Your task to perform on an android device: change the clock display to digital Image 0: 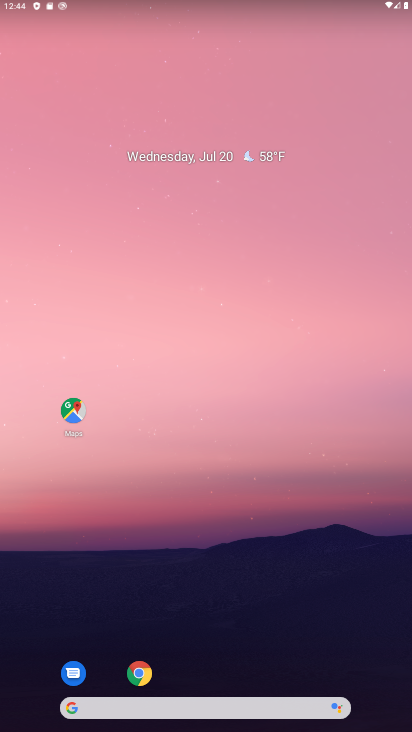
Step 0: drag from (234, 614) to (206, 90)
Your task to perform on an android device: change the clock display to digital Image 1: 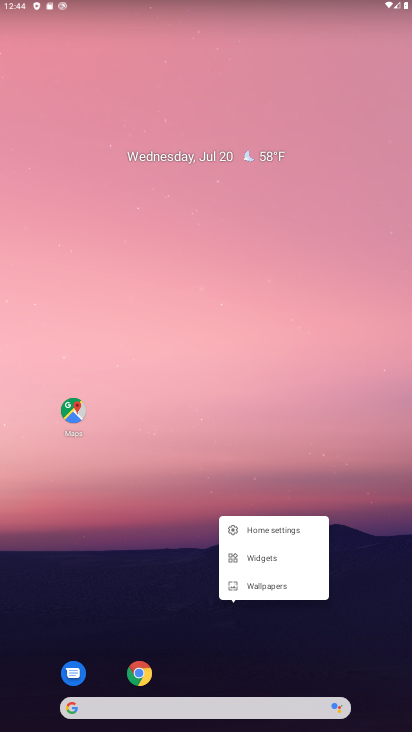
Step 1: click (310, 306)
Your task to perform on an android device: change the clock display to digital Image 2: 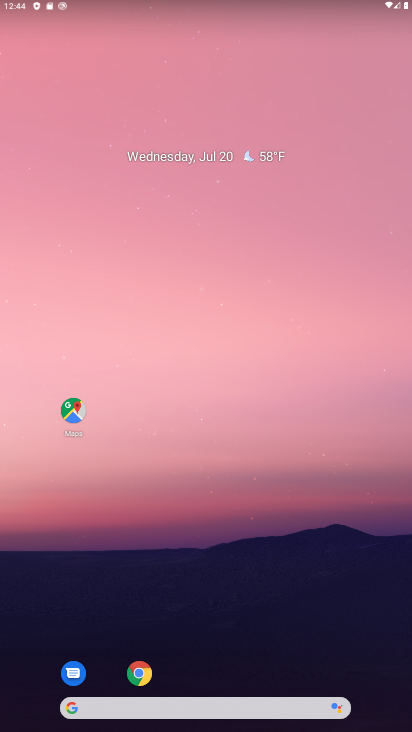
Step 2: drag from (272, 592) to (232, 0)
Your task to perform on an android device: change the clock display to digital Image 3: 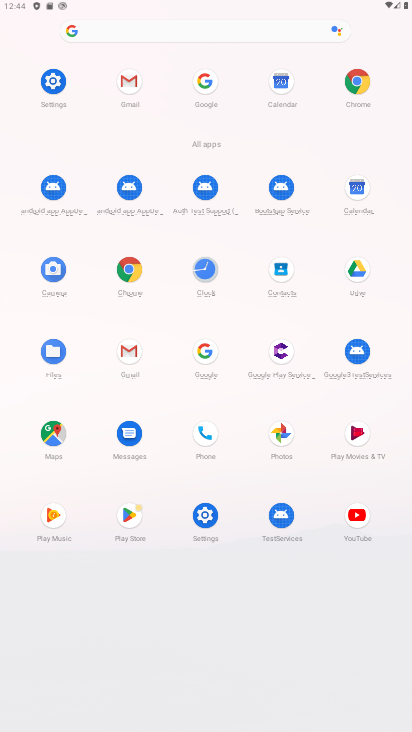
Step 3: click (209, 271)
Your task to perform on an android device: change the clock display to digital Image 4: 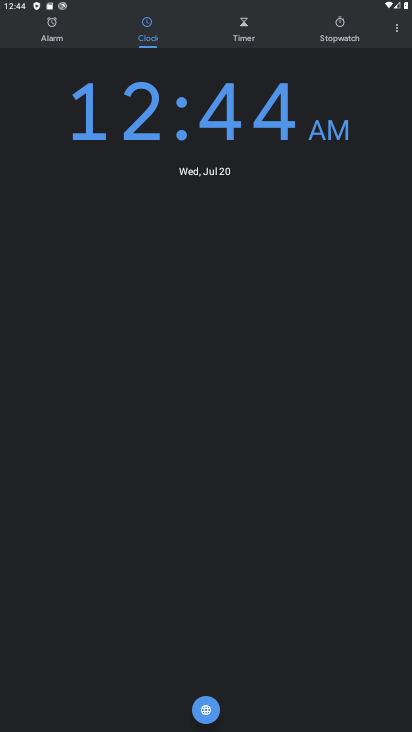
Step 4: click (404, 30)
Your task to perform on an android device: change the clock display to digital Image 5: 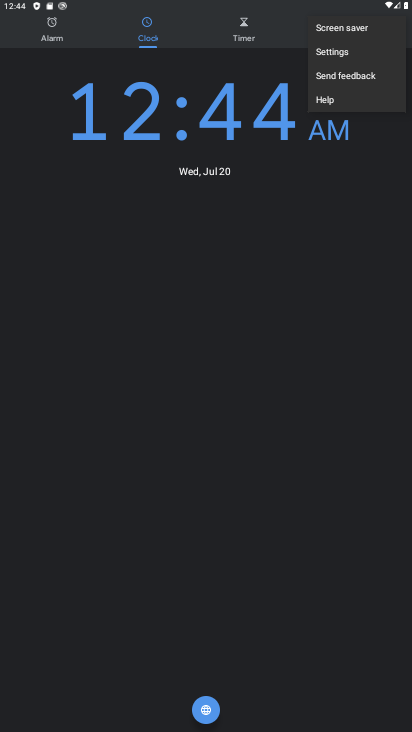
Step 5: click (350, 51)
Your task to perform on an android device: change the clock display to digital Image 6: 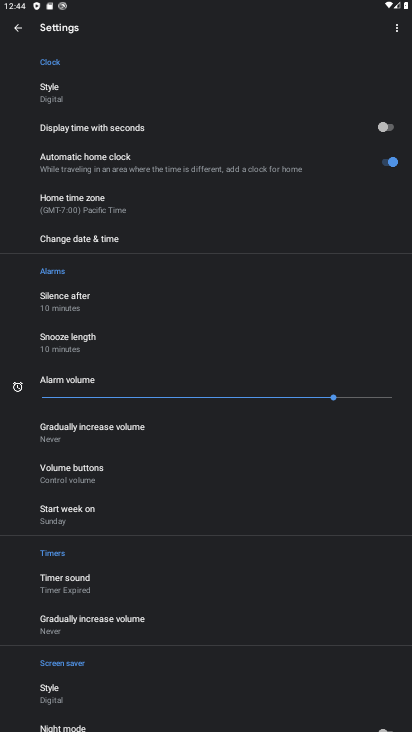
Step 6: task complete